Your task to perform on an android device: toggle notification dots Image 0: 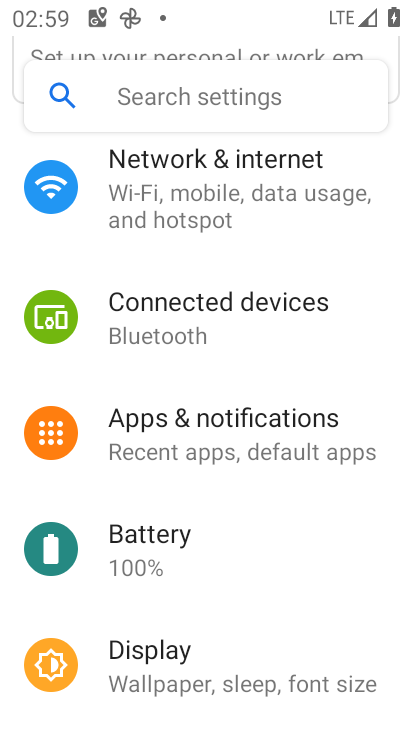
Step 0: click (163, 417)
Your task to perform on an android device: toggle notification dots Image 1: 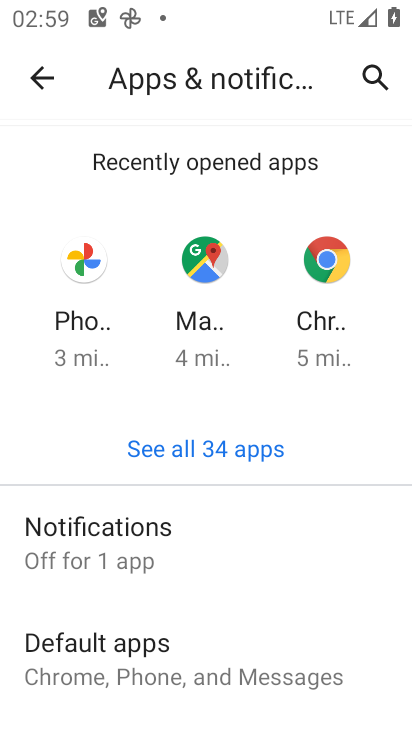
Step 1: click (50, 514)
Your task to perform on an android device: toggle notification dots Image 2: 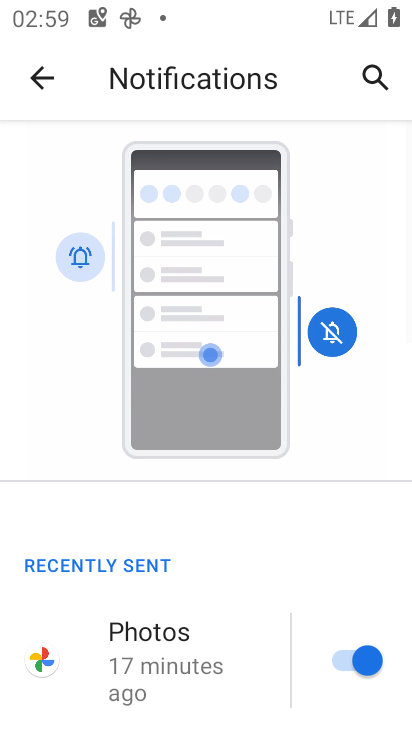
Step 2: drag from (250, 652) to (244, 280)
Your task to perform on an android device: toggle notification dots Image 3: 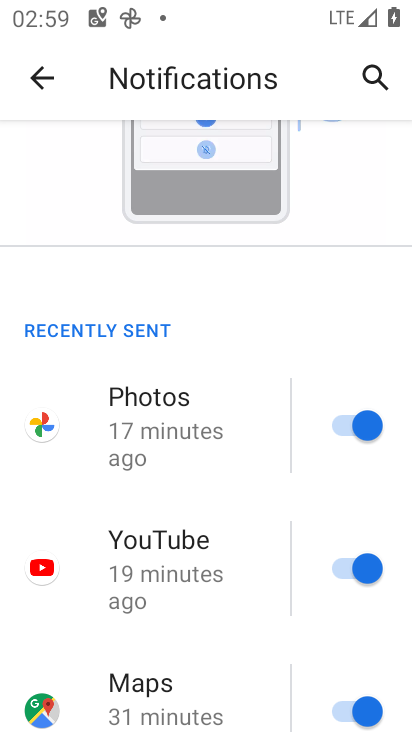
Step 3: drag from (264, 629) to (246, 388)
Your task to perform on an android device: toggle notification dots Image 4: 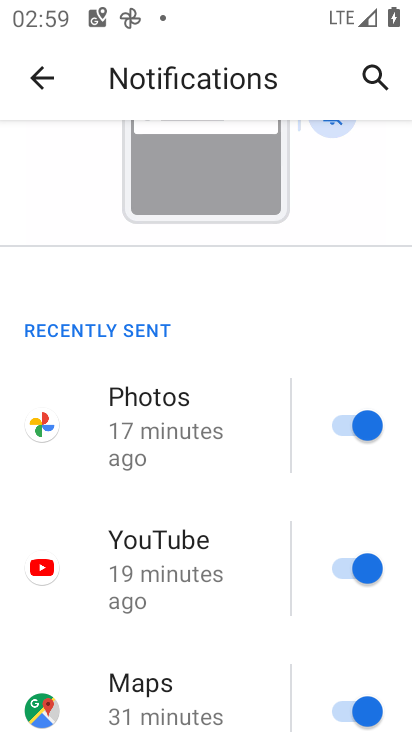
Step 4: drag from (266, 669) to (226, 318)
Your task to perform on an android device: toggle notification dots Image 5: 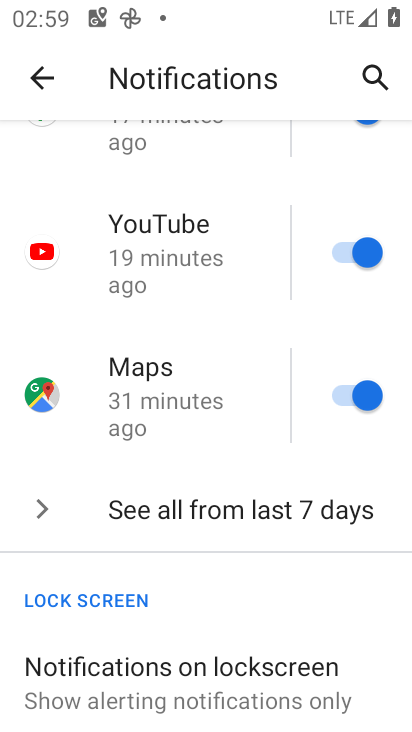
Step 5: drag from (255, 659) to (253, 369)
Your task to perform on an android device: toggle notification dots Image 6: 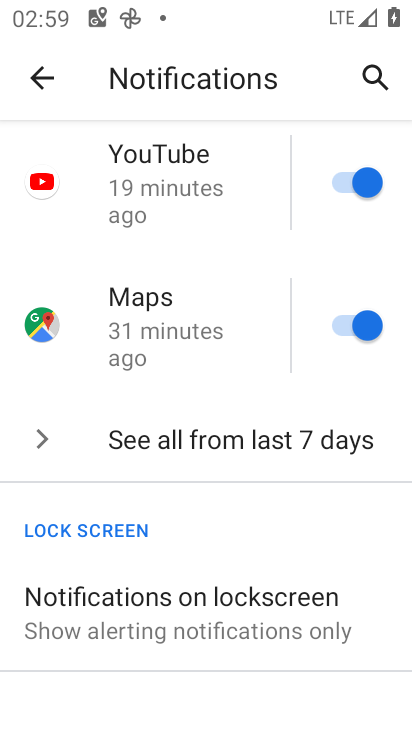
Step 6: drag from (256, 666) to (249, 373)
Your task to perform on an android device: toggle notification dots Image 7: 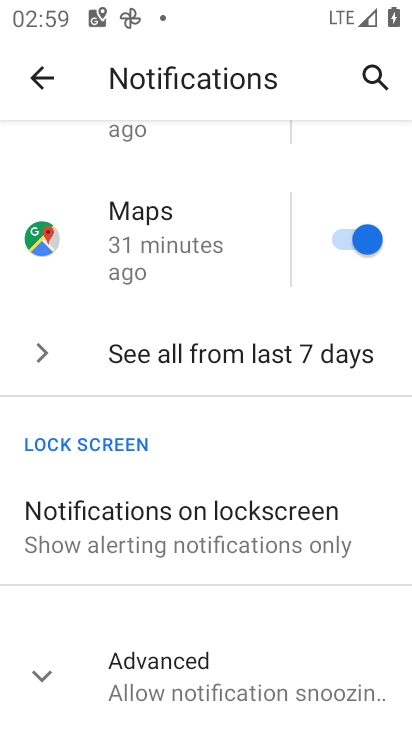
Step 7: click (51, 676)
Your task to perform on an android device: toggle notification dots Image 8: 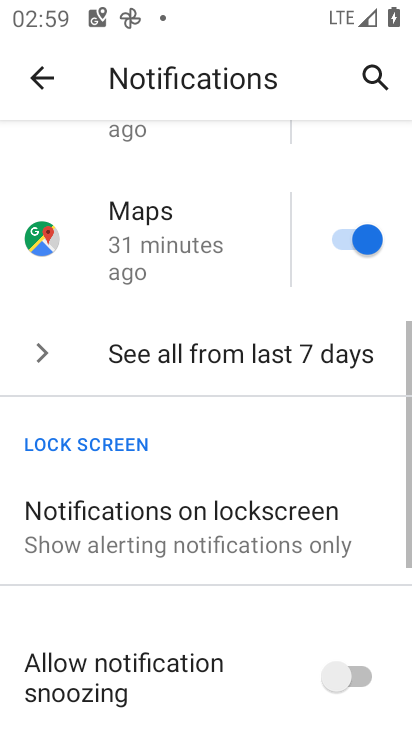
Step 8: drag from (254, 694) to (264, 370)
Your task to perform on an android device: toggle notification dots Image 9: 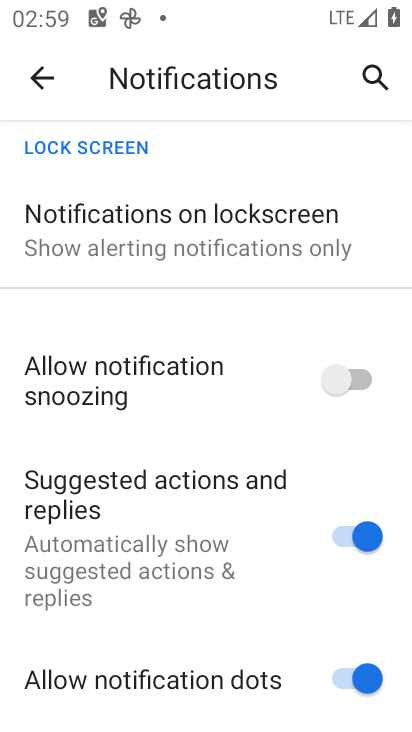
Step 9: drag from (277, 644) to (281, 378)
Your task to perform on an android device: toggle notification dots Image 10: 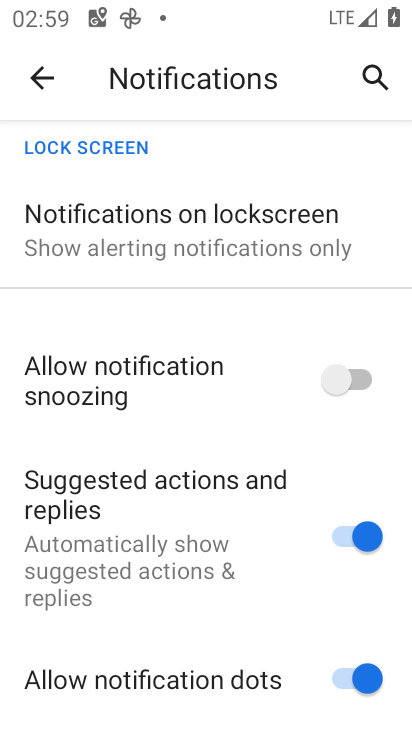
Step 10: click (338, 685)
Your task to perform on an android device: toggle notification dots Image 11: 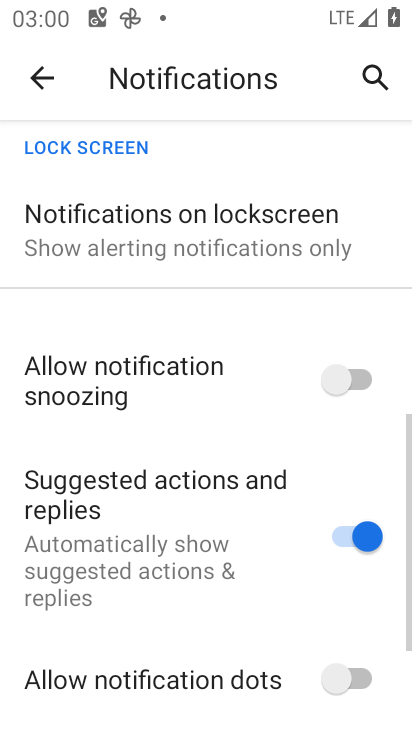
Step 11: task complete